Your task to perform on an android device: Open Reddit.com Image 0: 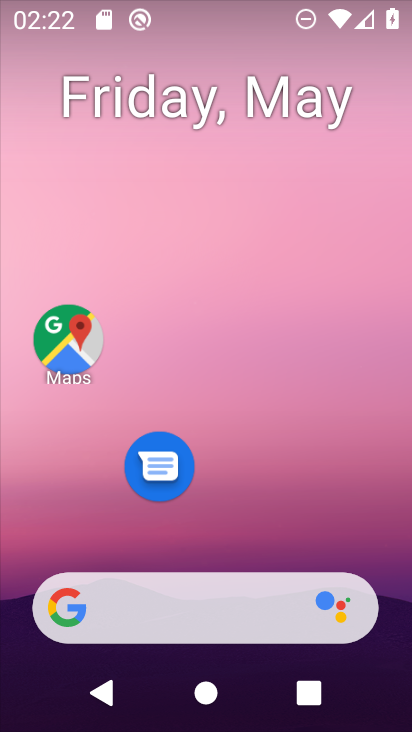
Step 0: drag from (361, 508) to (130, 0)
Your task to perform on an android device: Open Reddit.com Image 1: 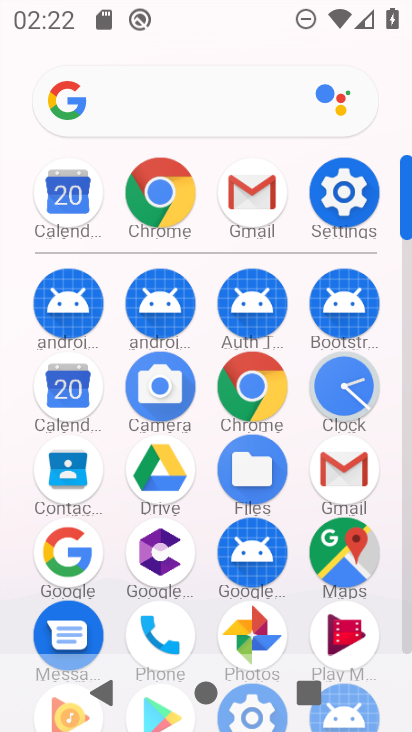
Step 1: click (167, 112)
Your task to perform on an android device: Open Reddit.com Image 2: 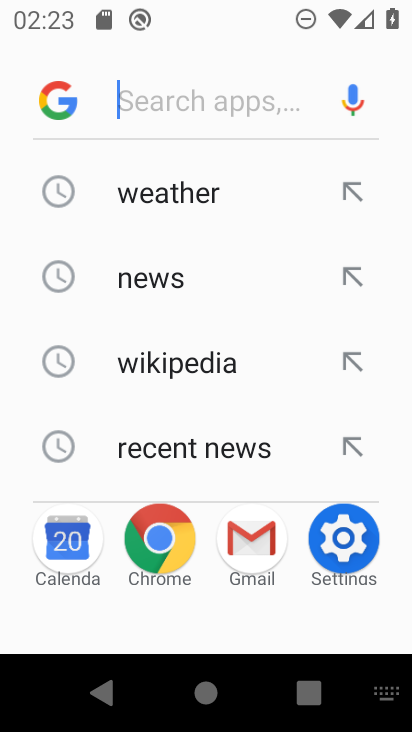
Step 2: type "reddit.com"
Your task to perform on an android device: Open Reddit.com Image 3: 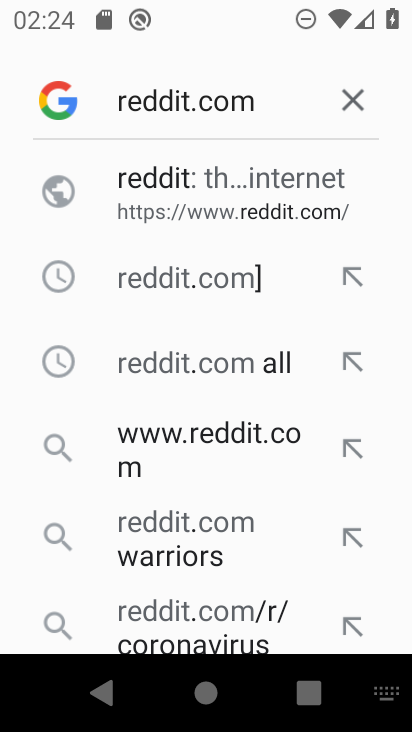
Step 3: task complete